Your task to perform on an android device: change the clock display to analog Image 0: 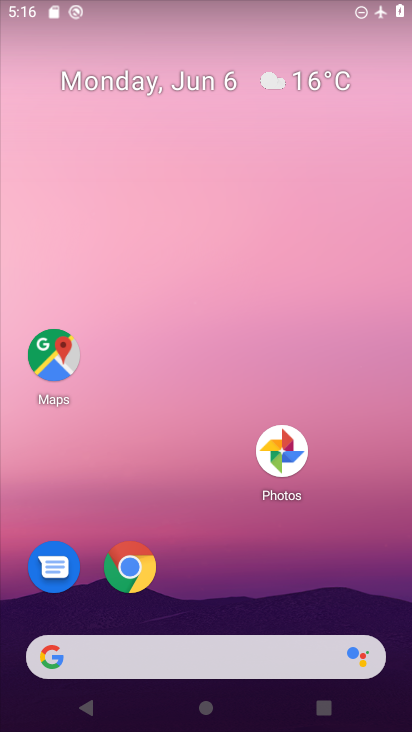
Step 0: drag from (241, 699) to (186, 171)
Your task to perform on an android device: change the clock display to analog Image 1: 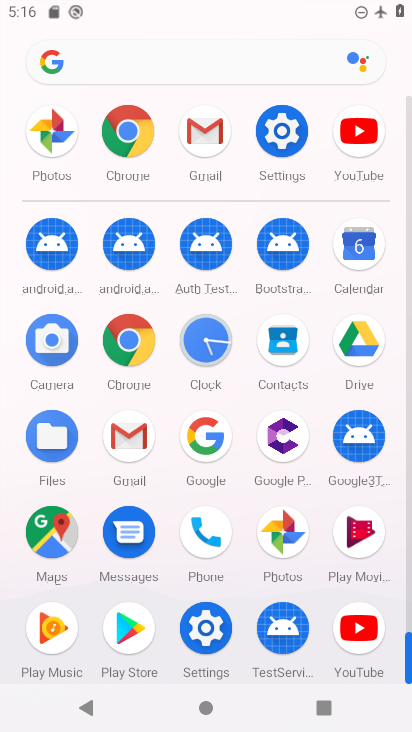
Step 1: click (208, 329)
Your task to perform on an android device: change the clock display to analog Image 2: 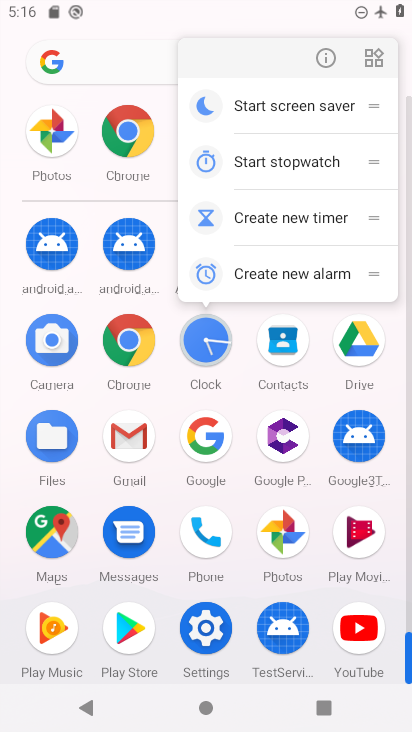
Step 2: click (199, 333)
Your task to perform on an android device: change the clock display to analog Image 3: 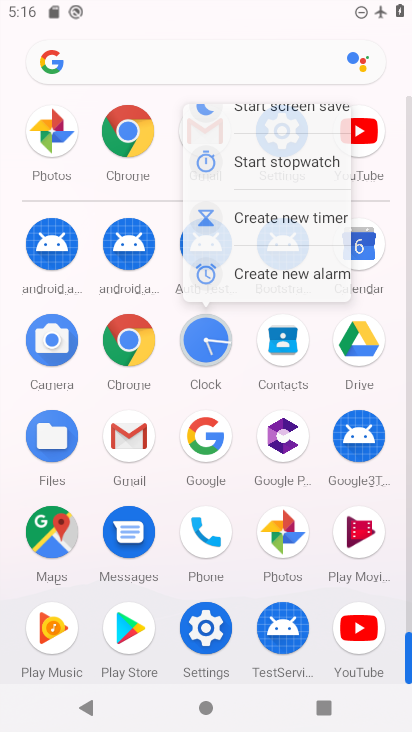
Step 3: click (202, 332)
Your task to perform on an android device: change the clock display to analog Image 4: 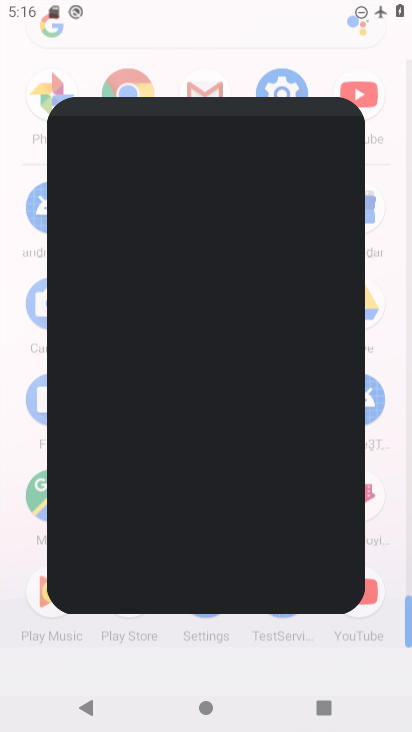
Step 4: click (201, 320)
Your task to perform on an android device: change the clock display to analog Image 5: 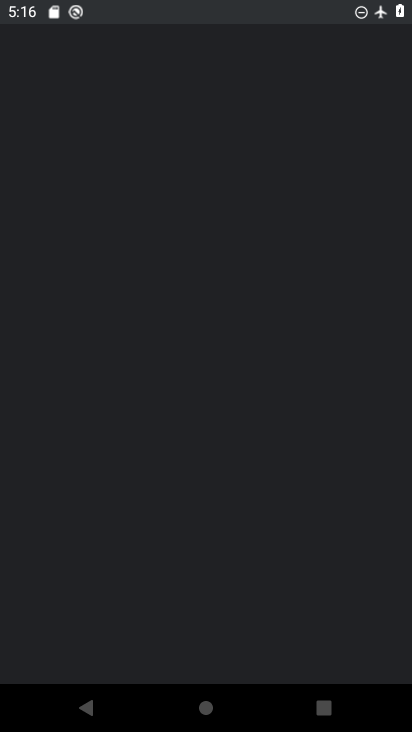
Step 5: click (201, 319)
Your task to perform on an android device: change the clock display to analog Image 6: 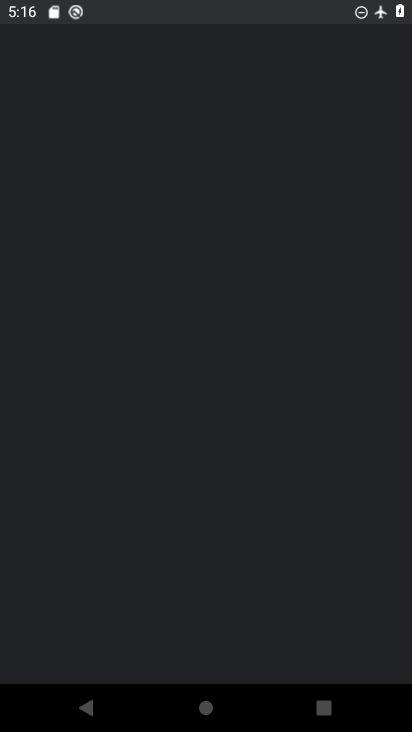
Step 6: click (198, 319)
Your task to perform on an android device: change the clock display to analog Image 7: 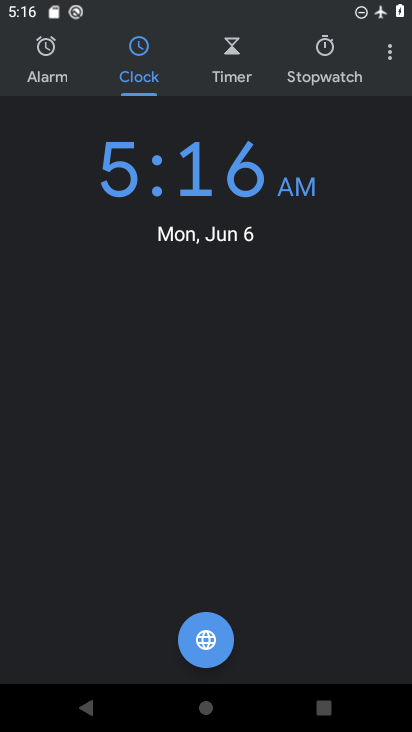
Step 7: click (387, 51)
Your task to perform on an android device: change the clock display to analog Image 8: 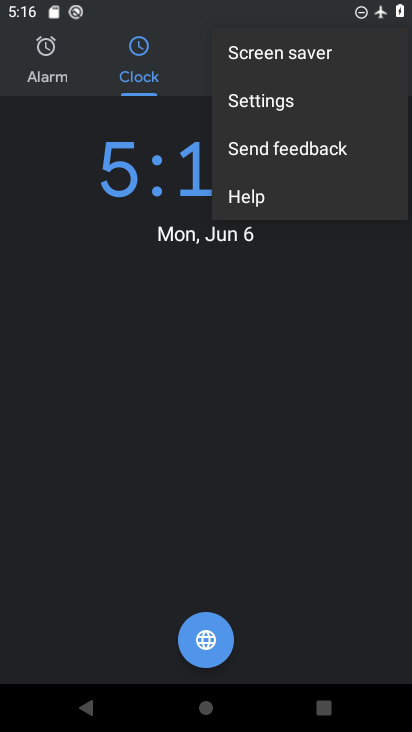
Step 8: click (241, 111)
Your task to perform on an android device: change the clock display to analog Image 9: 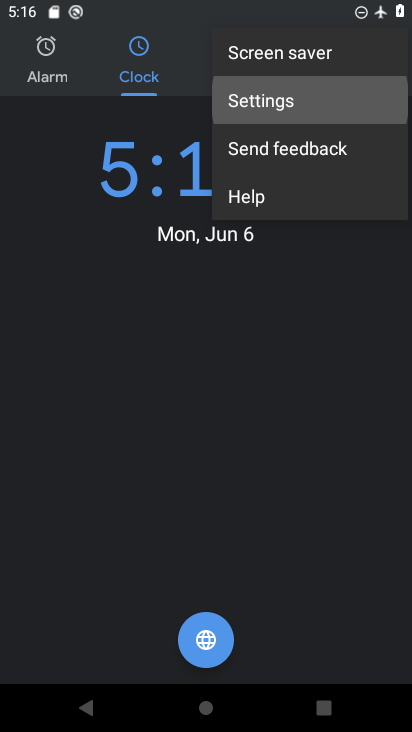
Step 9: click (245, 111)
Your task to perform on an android device: change the clock display to analog Image 10: 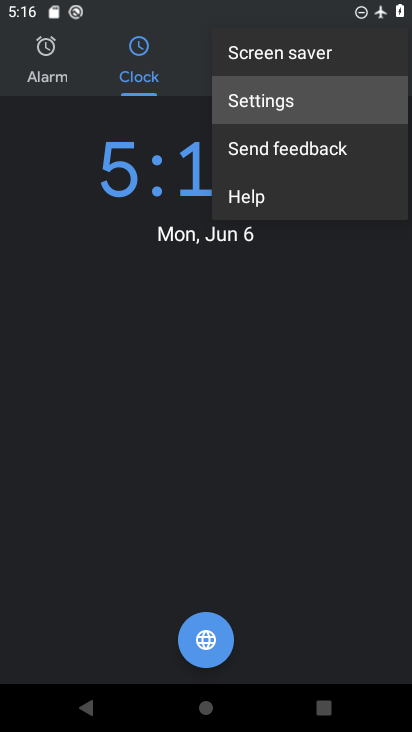
Step 10: click (245, 111)
Your task to perform on an android device: change the clock display to analog Image 11: 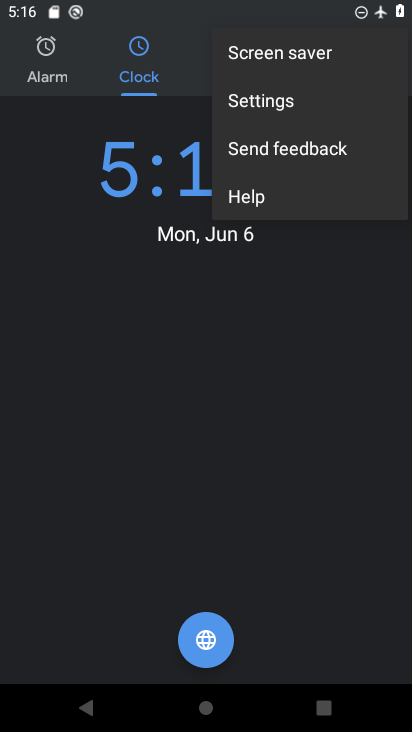
Step 11: click (246, 111)
Your task to perform on an android device: change the clock display to analog Image 12: 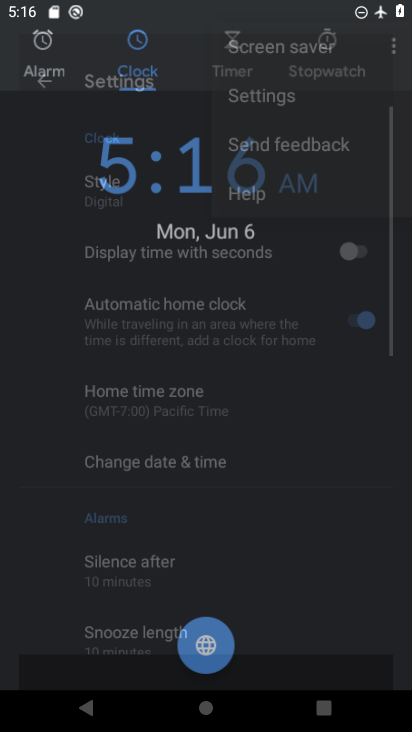
Step 12: click (249, 111)
Your task to perform on an android device: change the clock display to analog Image 13: 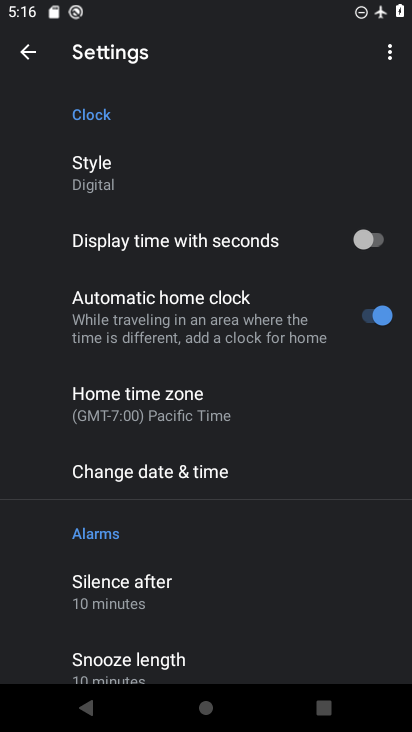
Step 13: click (159, 173)
Your task to perform on an android device: change the clock display to analog Image 14: 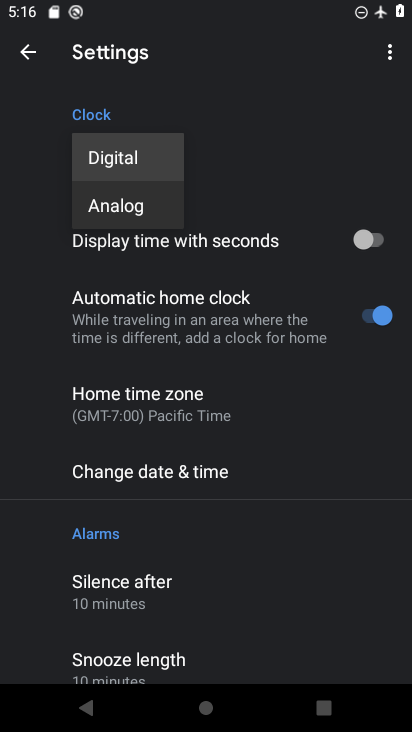
Step 14: click (109, 211)
Your task to perform on an android device: change the clock display to analog Image 15: 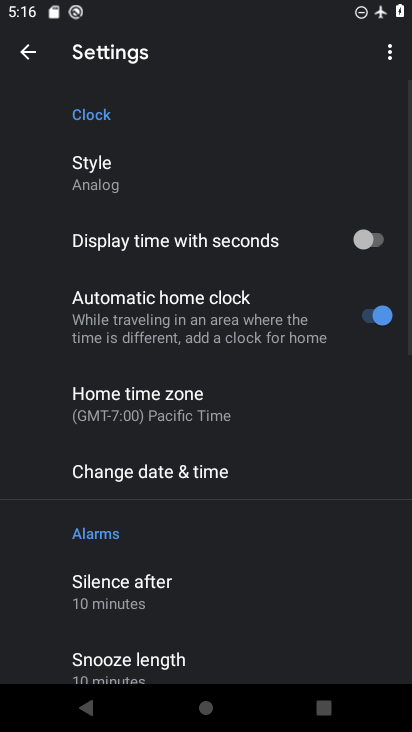
Step 15: task complete